Your task to perform on an android device: When is my next appointment? Image 0: 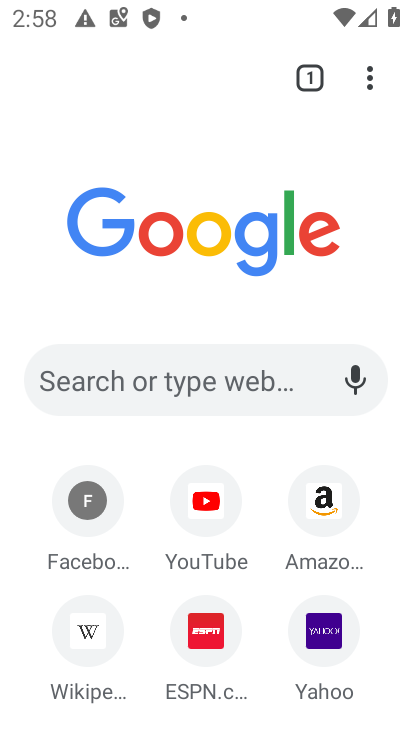
Step 0: press home button
Your task to perform on an android device: When is my next appointment? Image 1: 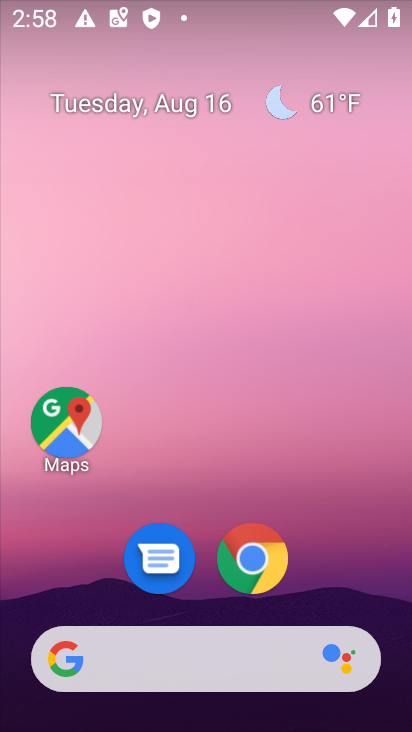
Step 1: drag from (377, 602) to (367, 160)
Your task to perform on an android device: When is my next appointment? Image 2: 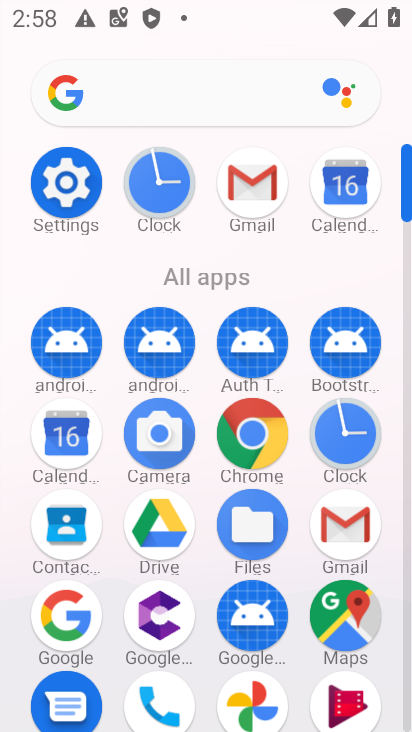
Step 2: click (342, 181)
Your task to perform on an android device: When is my next appointment? Image 3: 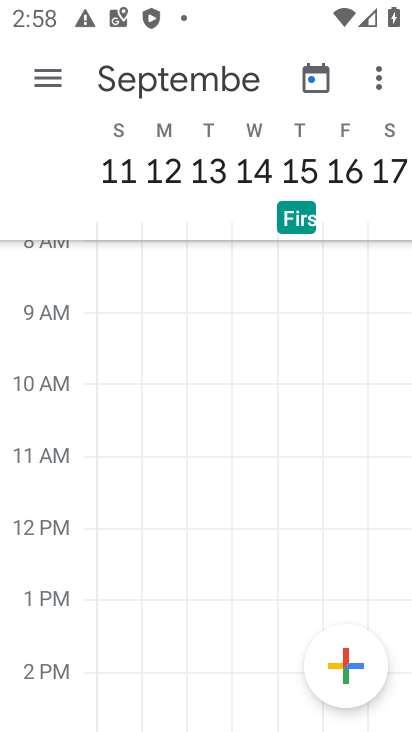
Step 3: click (38, 76)
Your task to perform on an android device: When is my next appointment? Image 4: 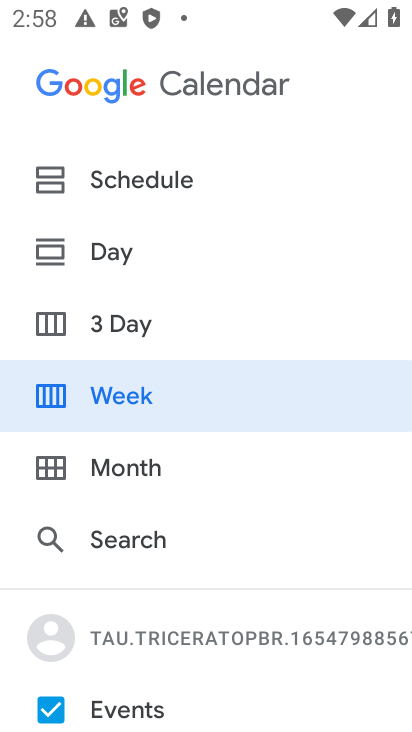
Step 4: click (147, 185)
Your task to perform on an android device: When is my next appointment? Image 5: 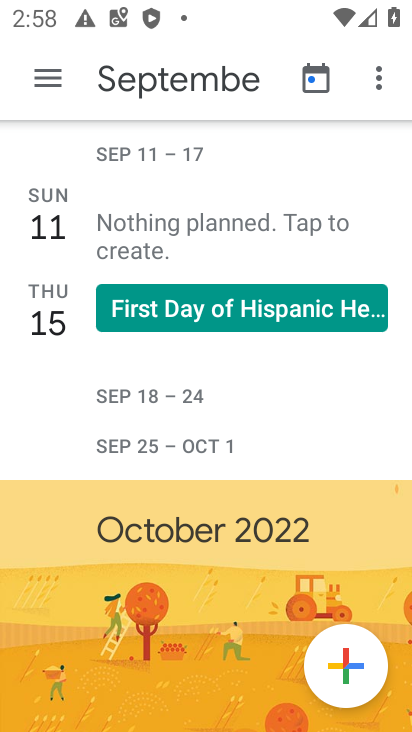
Step 5: drag from (246, 216) to (210, 463)
Your task to perform on an android device: When is my next appointment? Image 6: 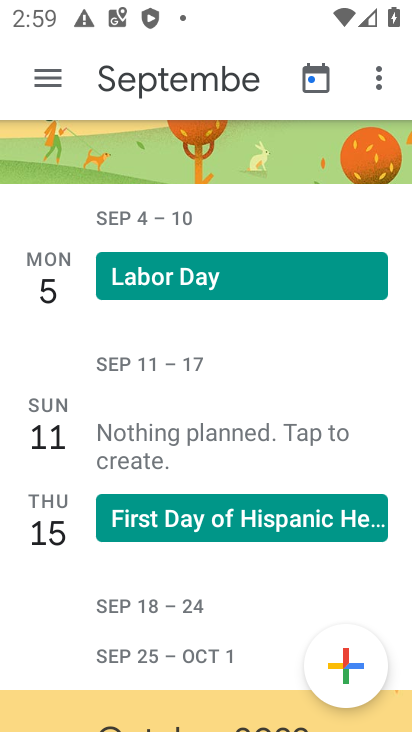
Step 6: drag from (287, 168) to (268, 563)
Your task to perform on an android device: When is my next appointment? Image 7: 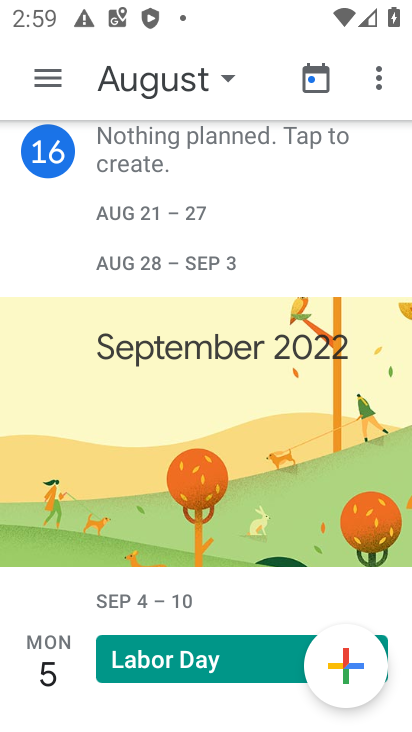
Step 7: drag from (287, 235) to (260, 598)
Your task to perform on an android device: When is my next appointment? Image 8: 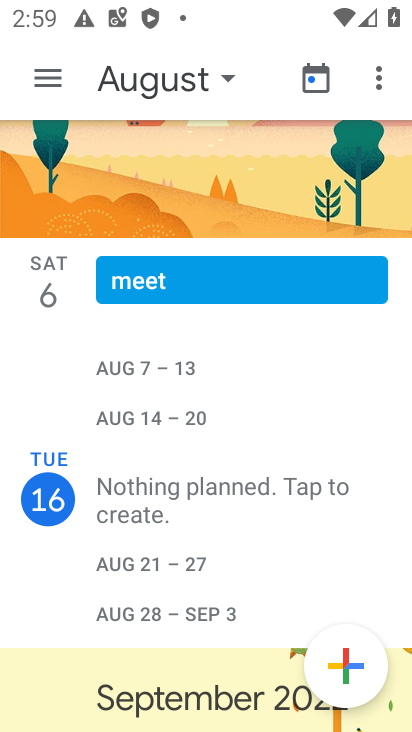
Step 8: click (296, 371)
Your task to perform on an android device: When is my next appointment? Image 9: 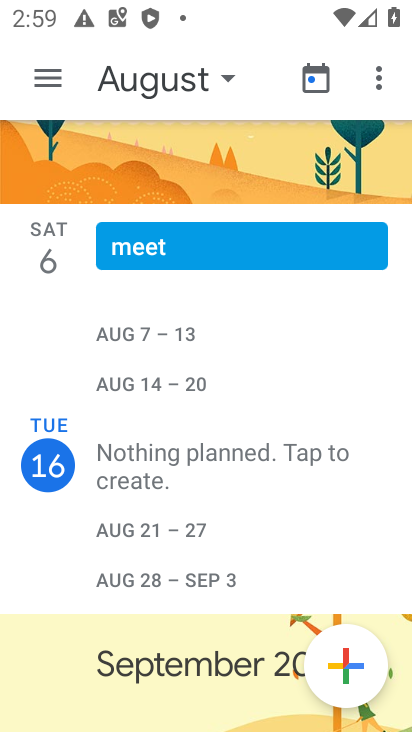
Step 9: task complete